Your task to perform on an android device: toggle notifications settings in the gmail app Image 0: 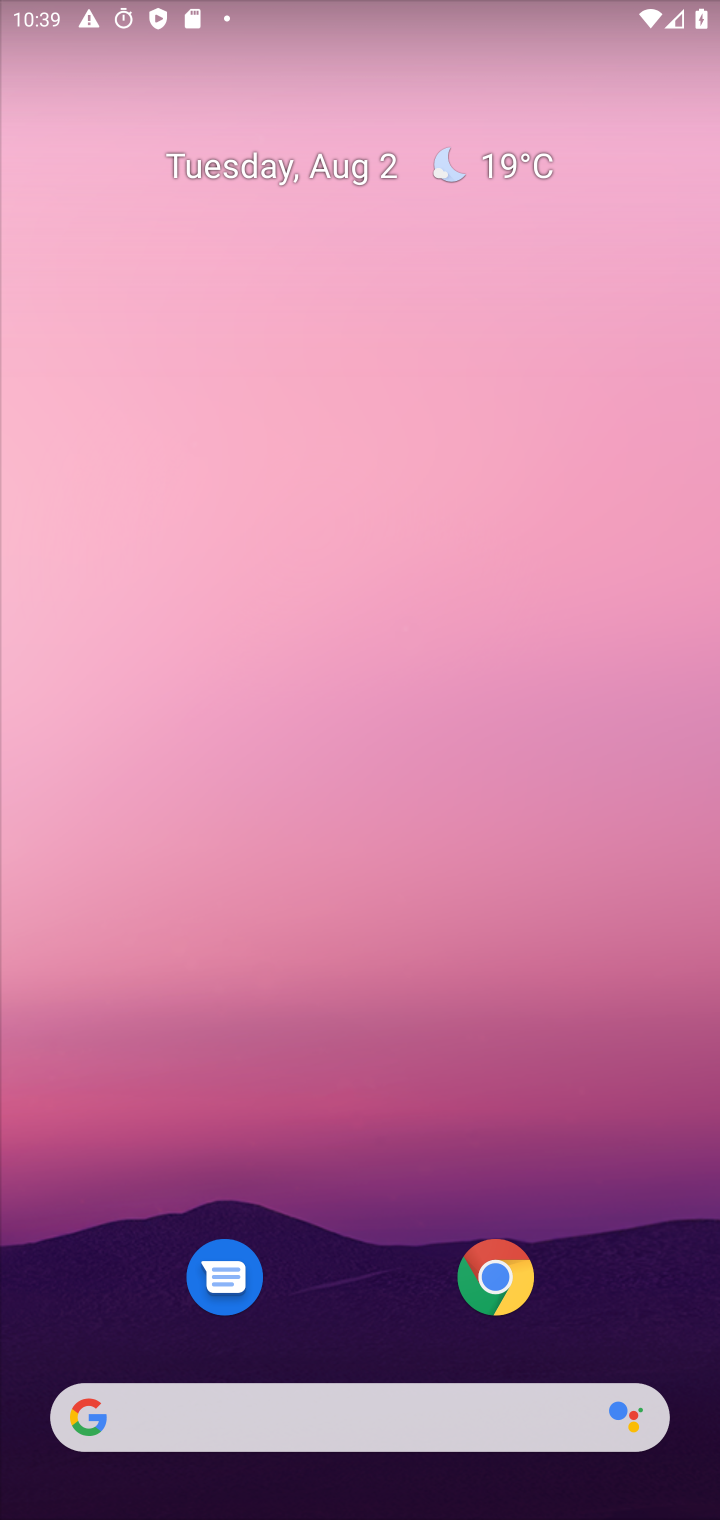
Step 0: press home button
Your task to perform on an android device: toggle notifications settings in the gmail app Image 1: 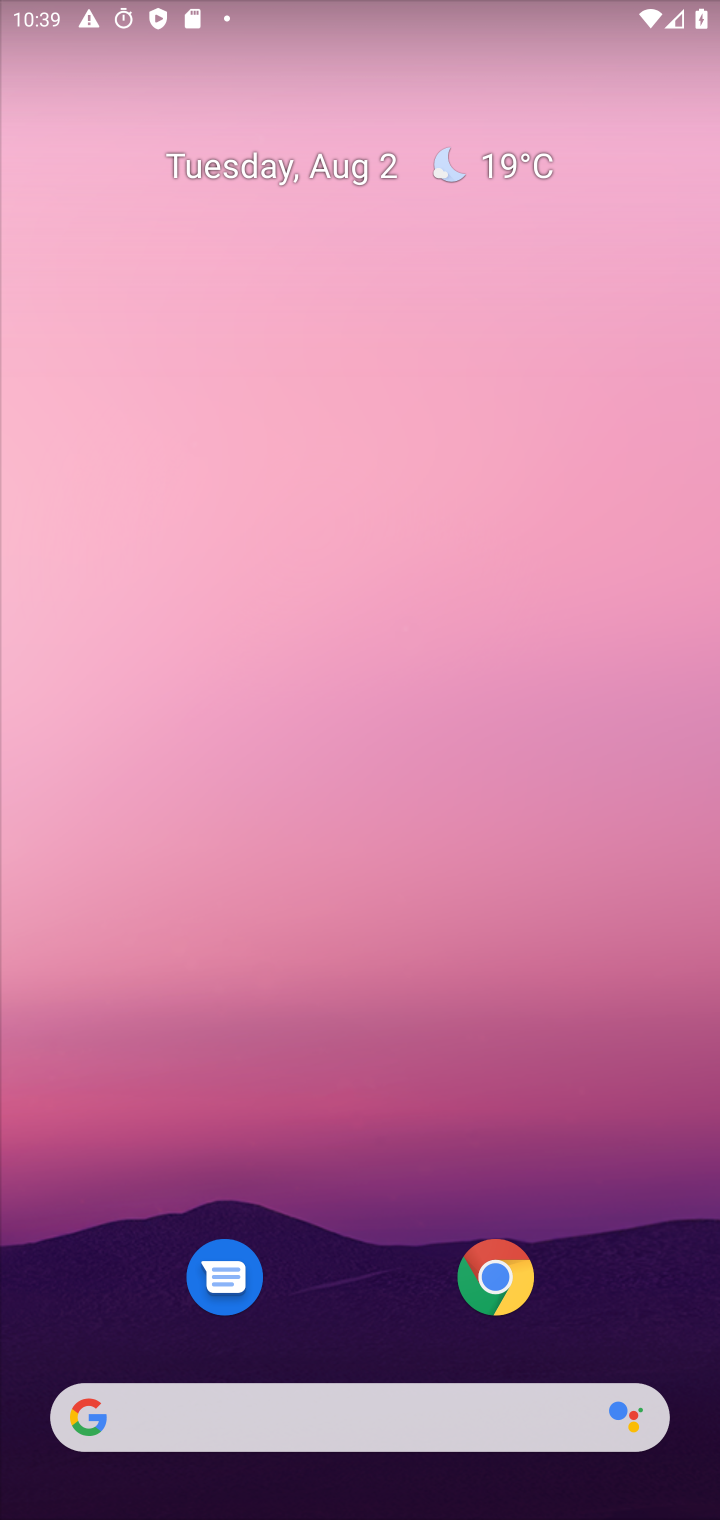
Step 1: press home button
Your task to perform on an android device: toggle notifications settings in the gmail app Image 2: 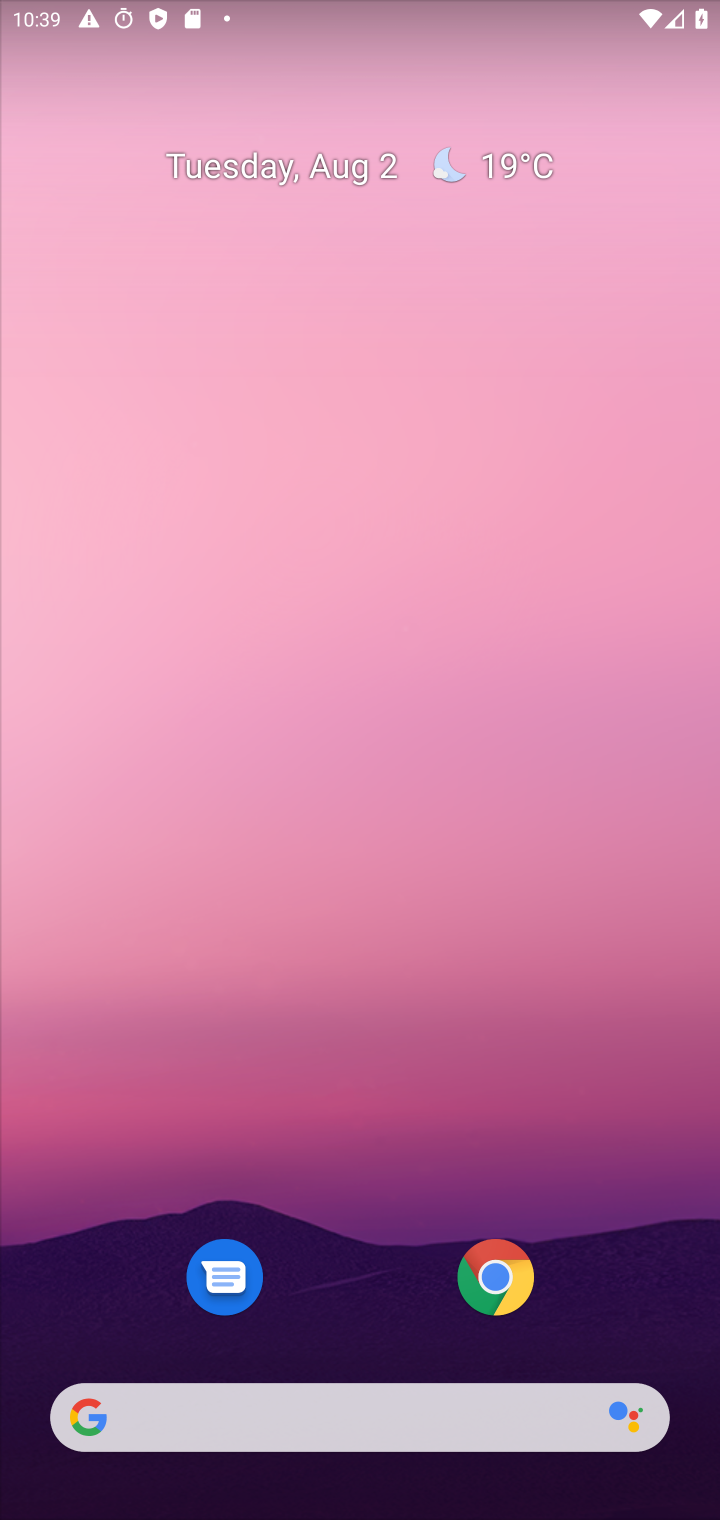
Step 2: drag from (342, 1217) to (281, 286)
Your task to perform on an android device: toggle notifications settings in the gmail app Image 3: 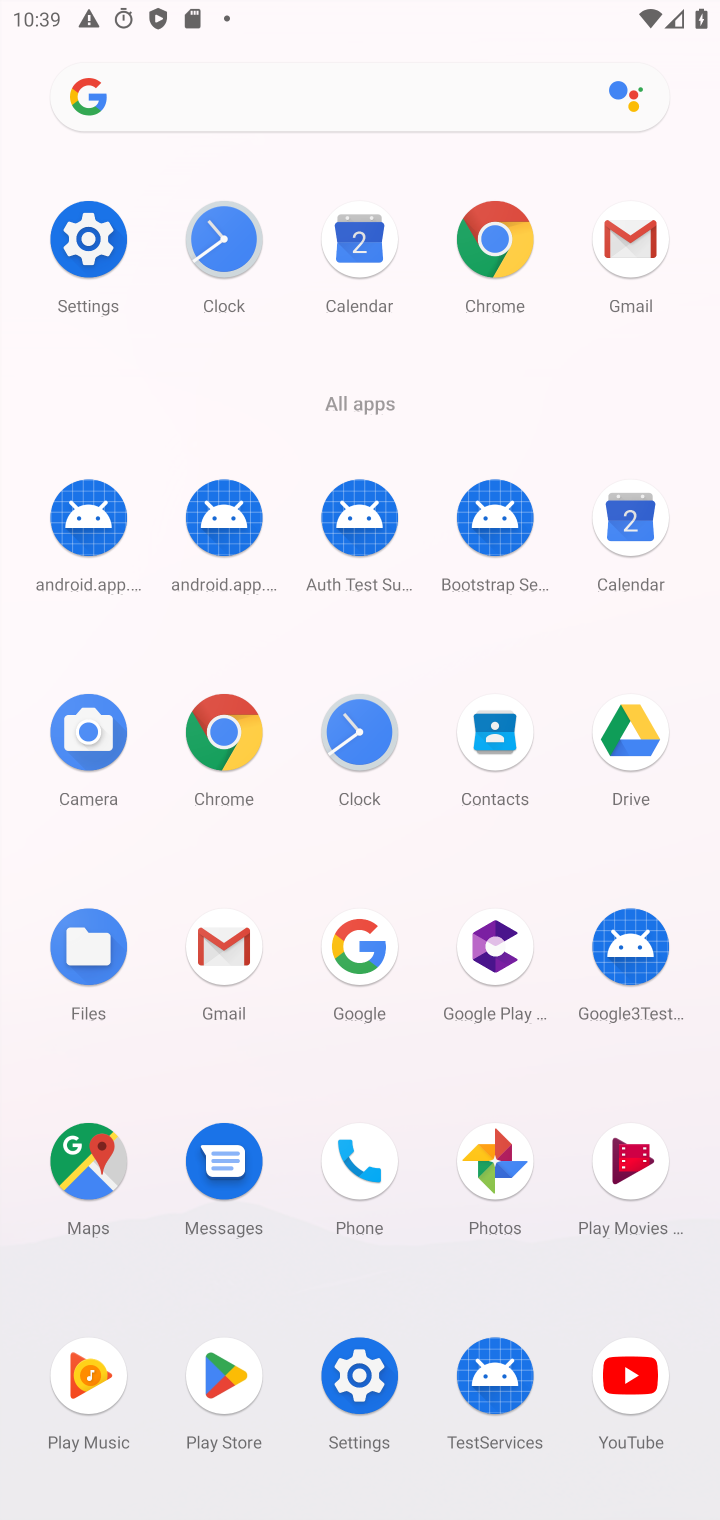
Step 3: click (631, 246)
Your task to perform on an android device: toggle notifications settings in the gmail app Image 4: 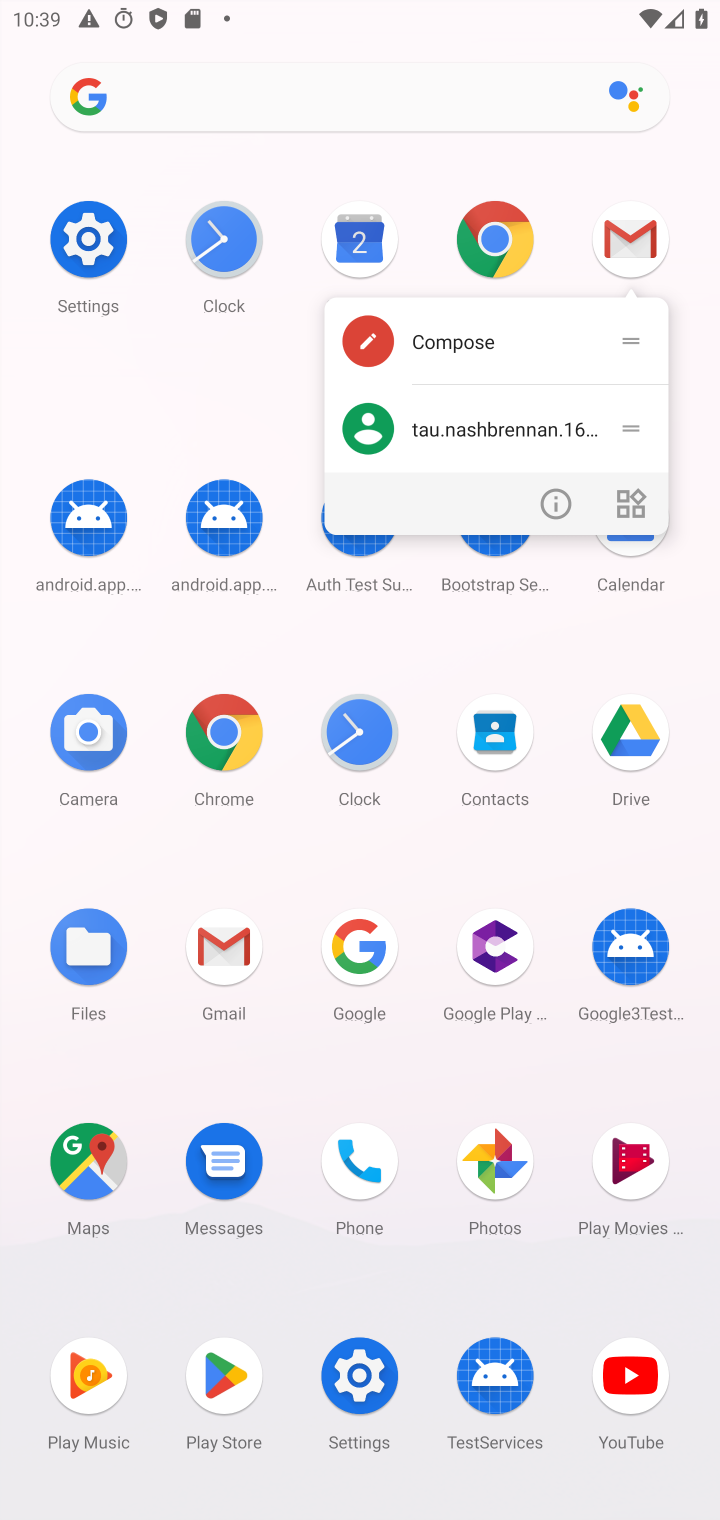
Step 4: click (629, 228)
Your task to perform on an android device: toggle notifications settings in the gmail app Image 5: 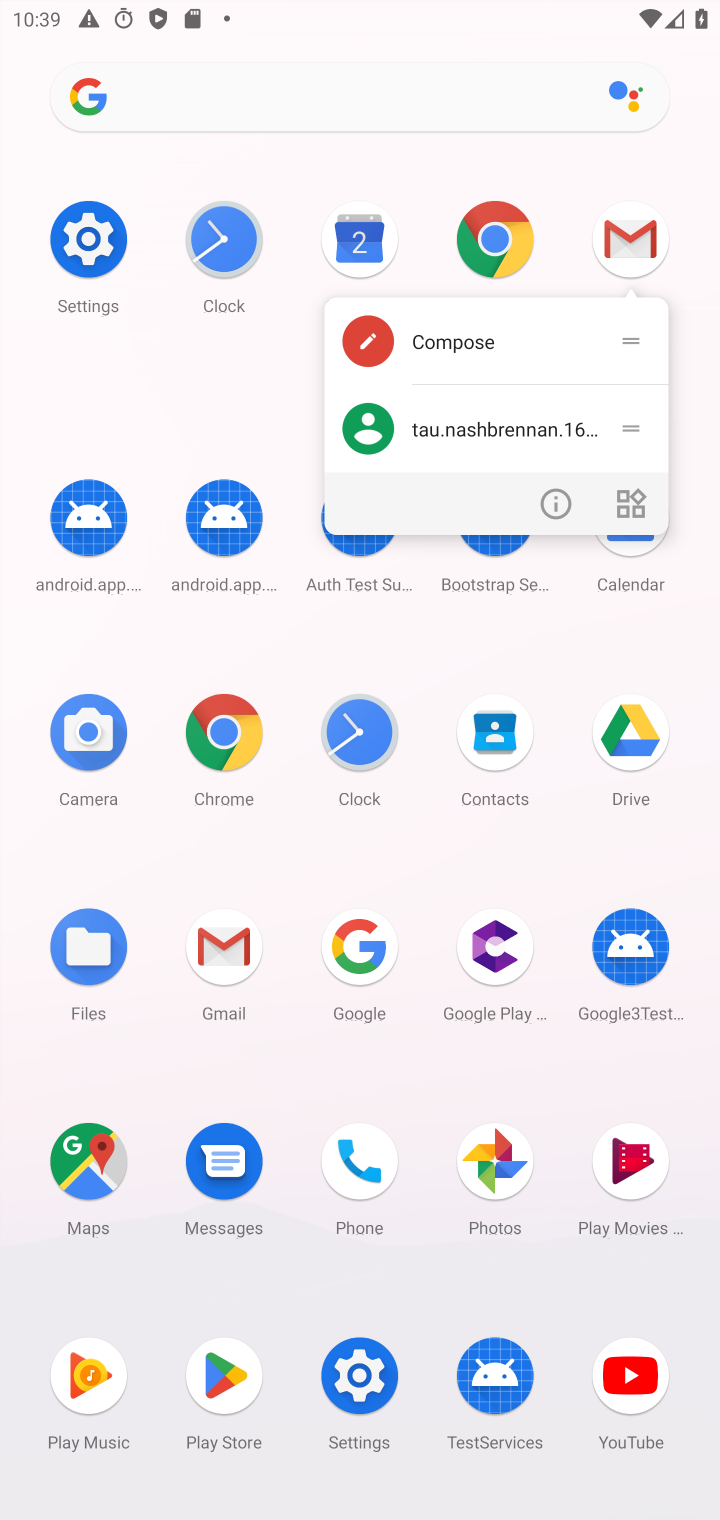
Step 5: click (629, 238)
Your task to perform on an android device: toggle notifications settings in the gmail app Image 6: 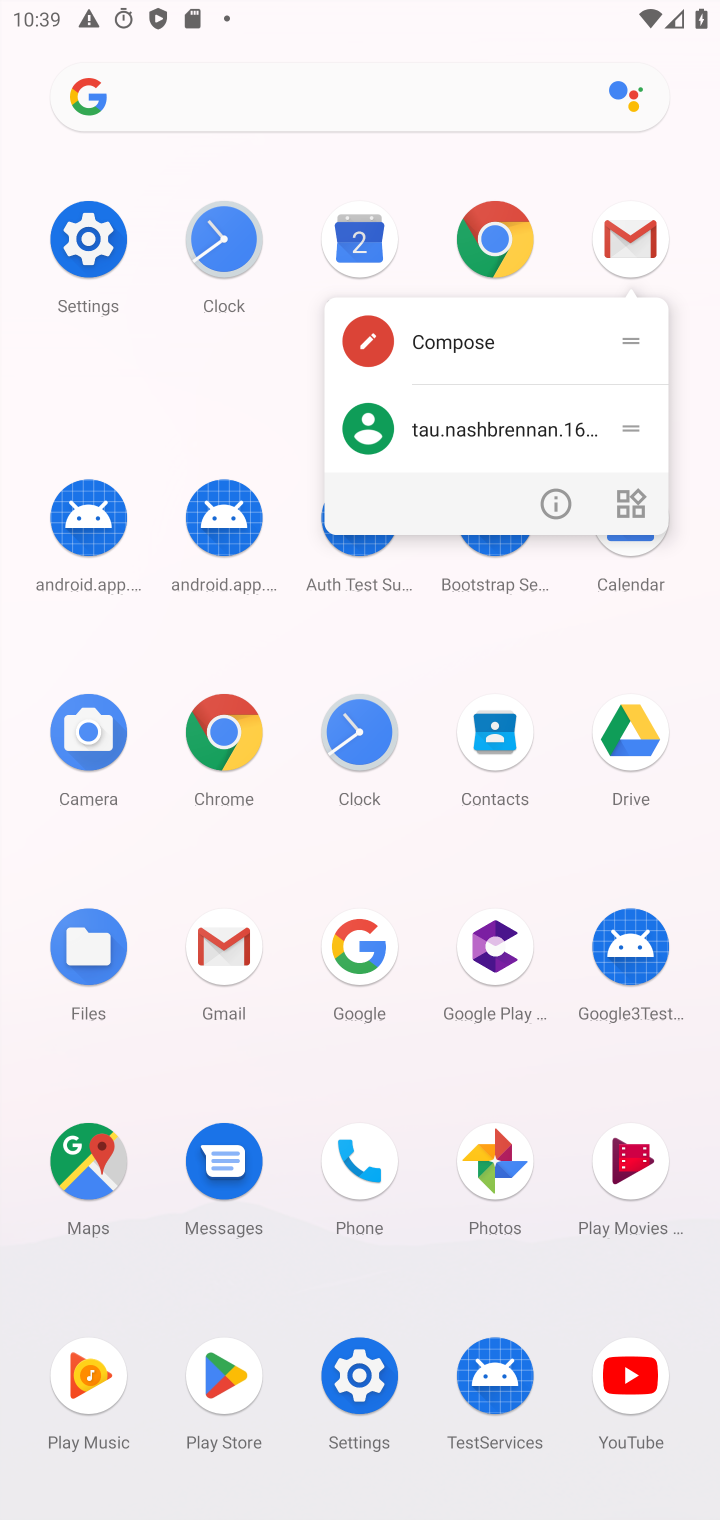
Step 6: click (652, 243)
Your task to perform on an android device: toggle notifications settings in the gmail app Image 7: 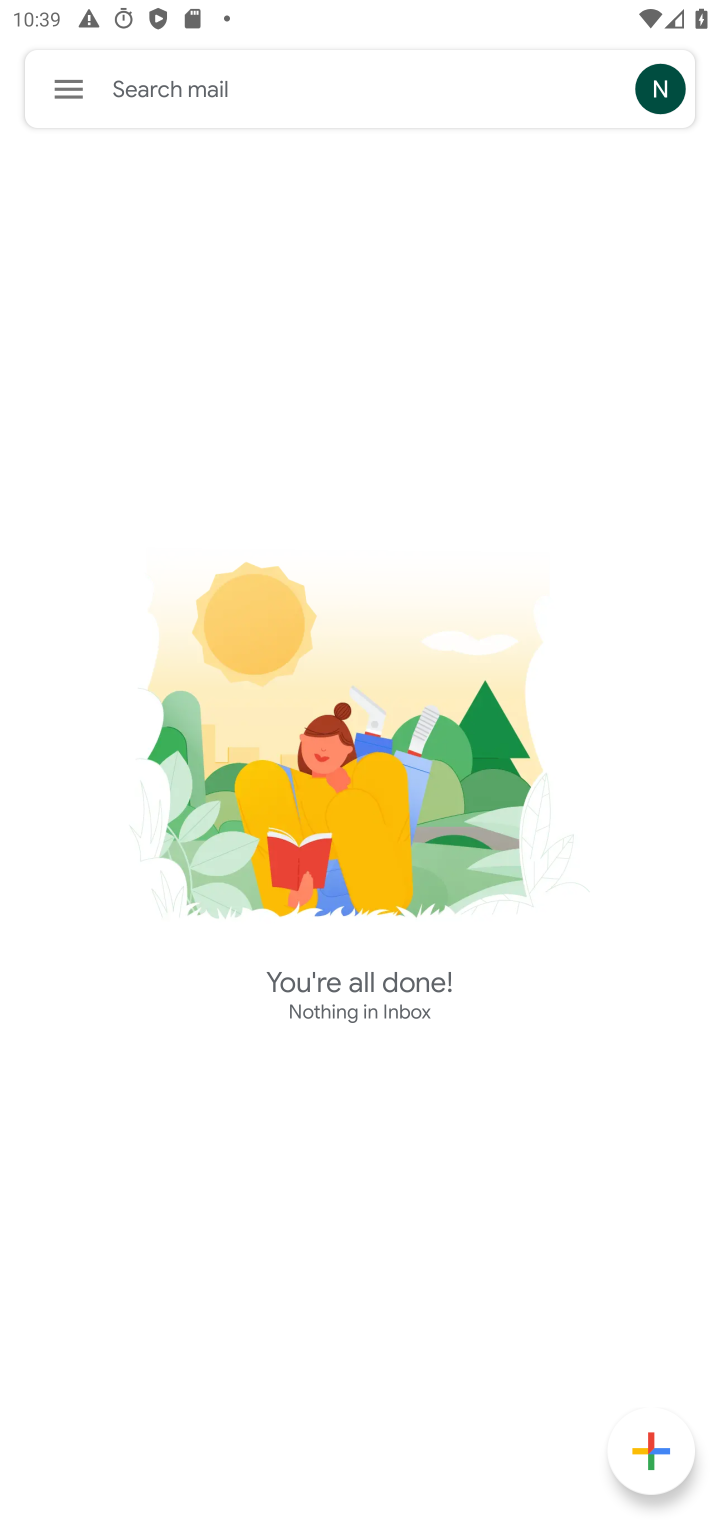
Step 7: click (71, 82)
Your task to perform on an android device: toggle notifications settings in the gmail app Image 8: 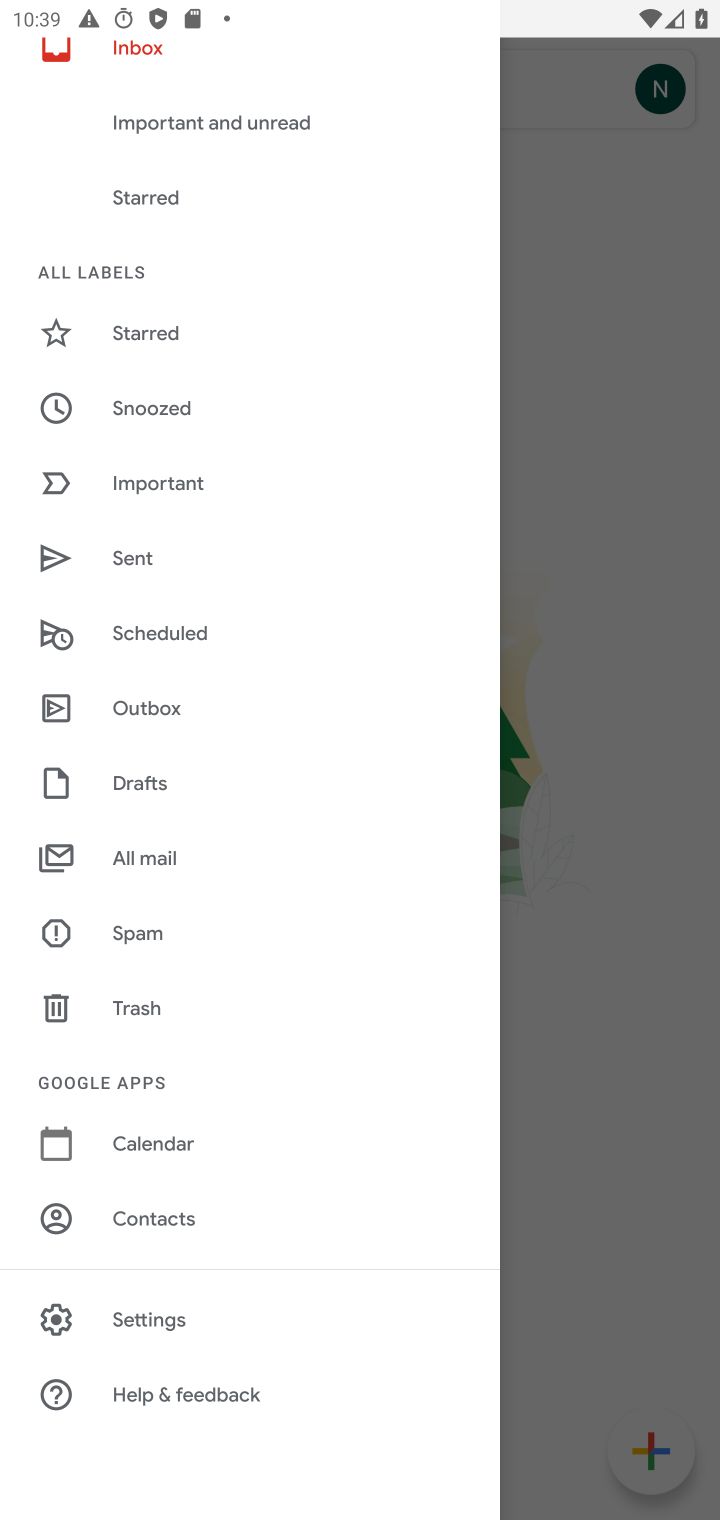
Step 8: click (163, 1314)
Your task to perform on an android device: toggle notifications settings in the gmail app Image 9: 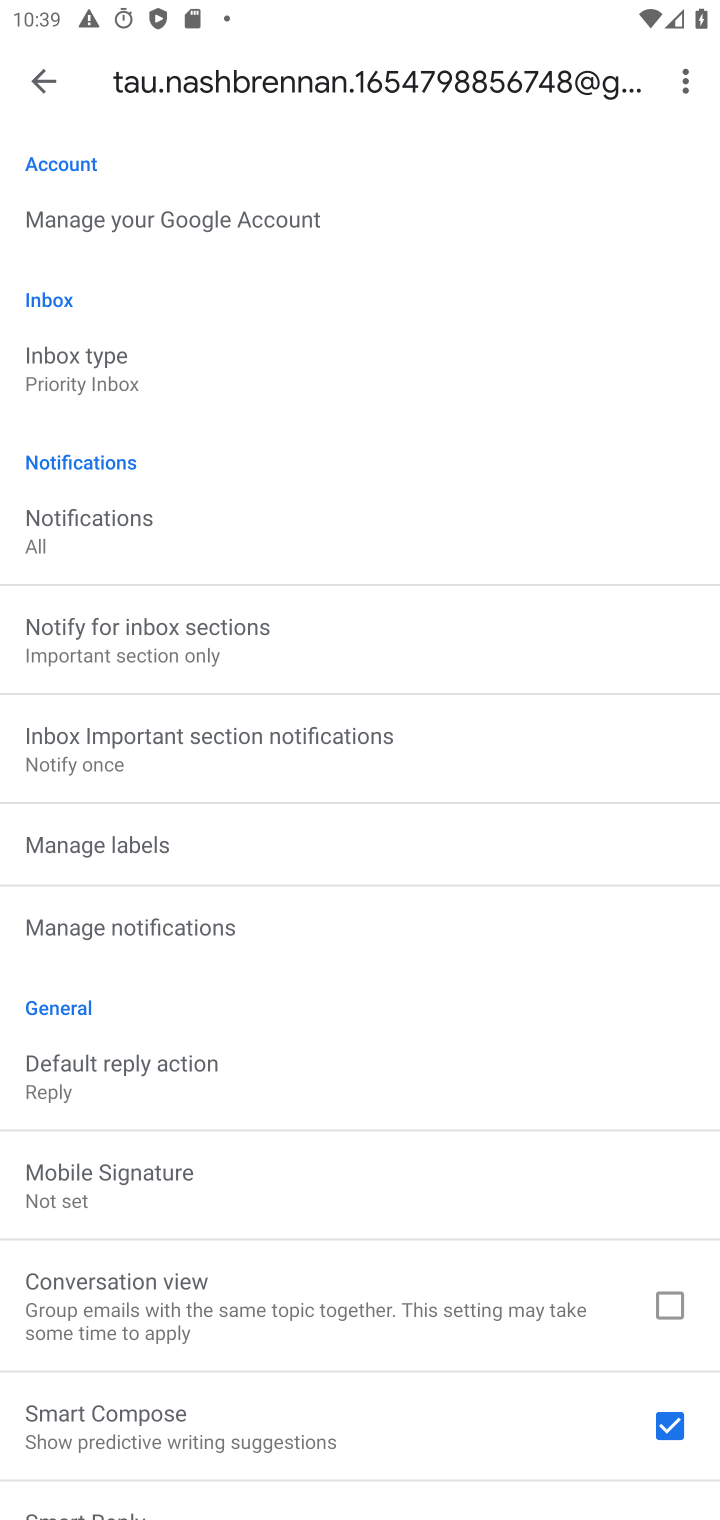
Step 9: click (144, 928)
Your task to perform on an android device: toggle notifications settings in the gmail app Image 10: 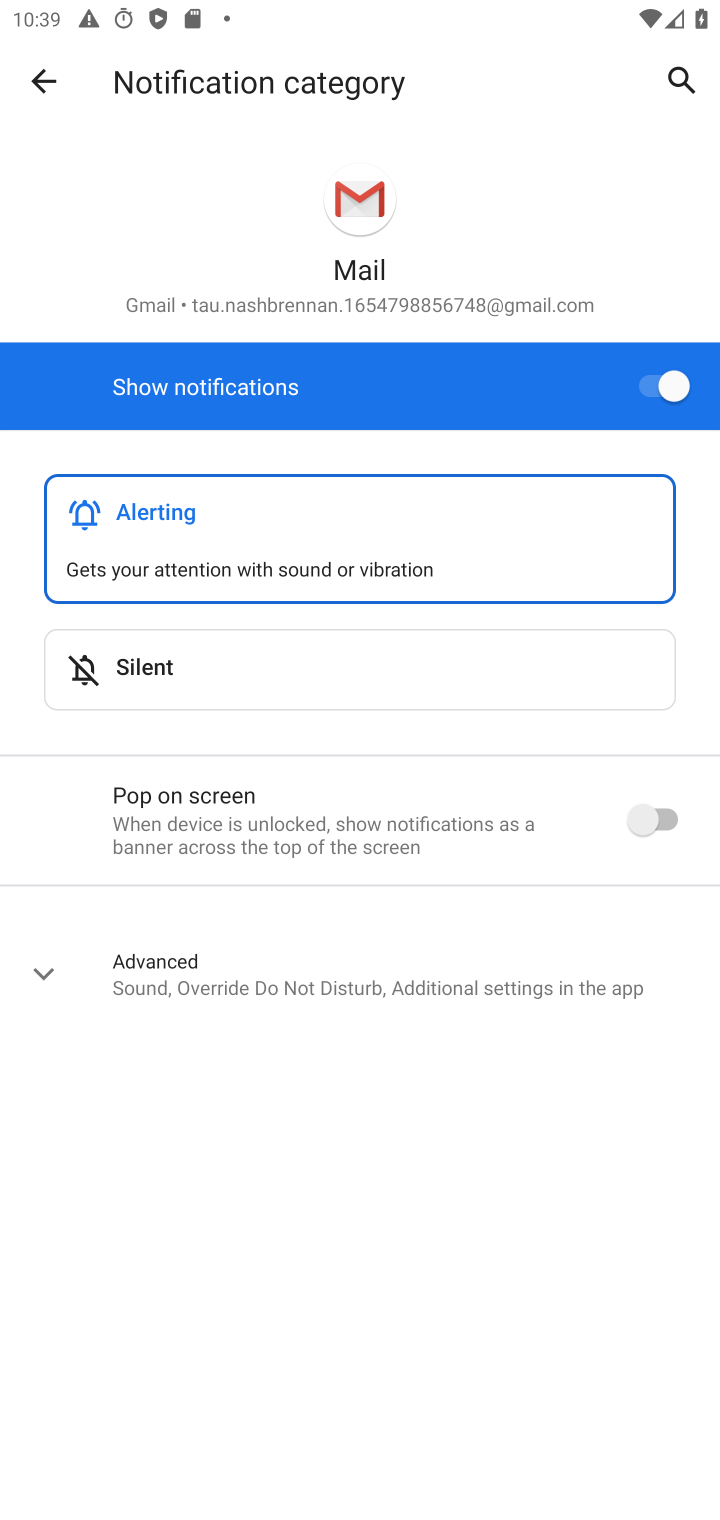
Step 10: click (677, 383)
Your task to perform on an android device: toggle notifications settings in the gmail app Image 11: 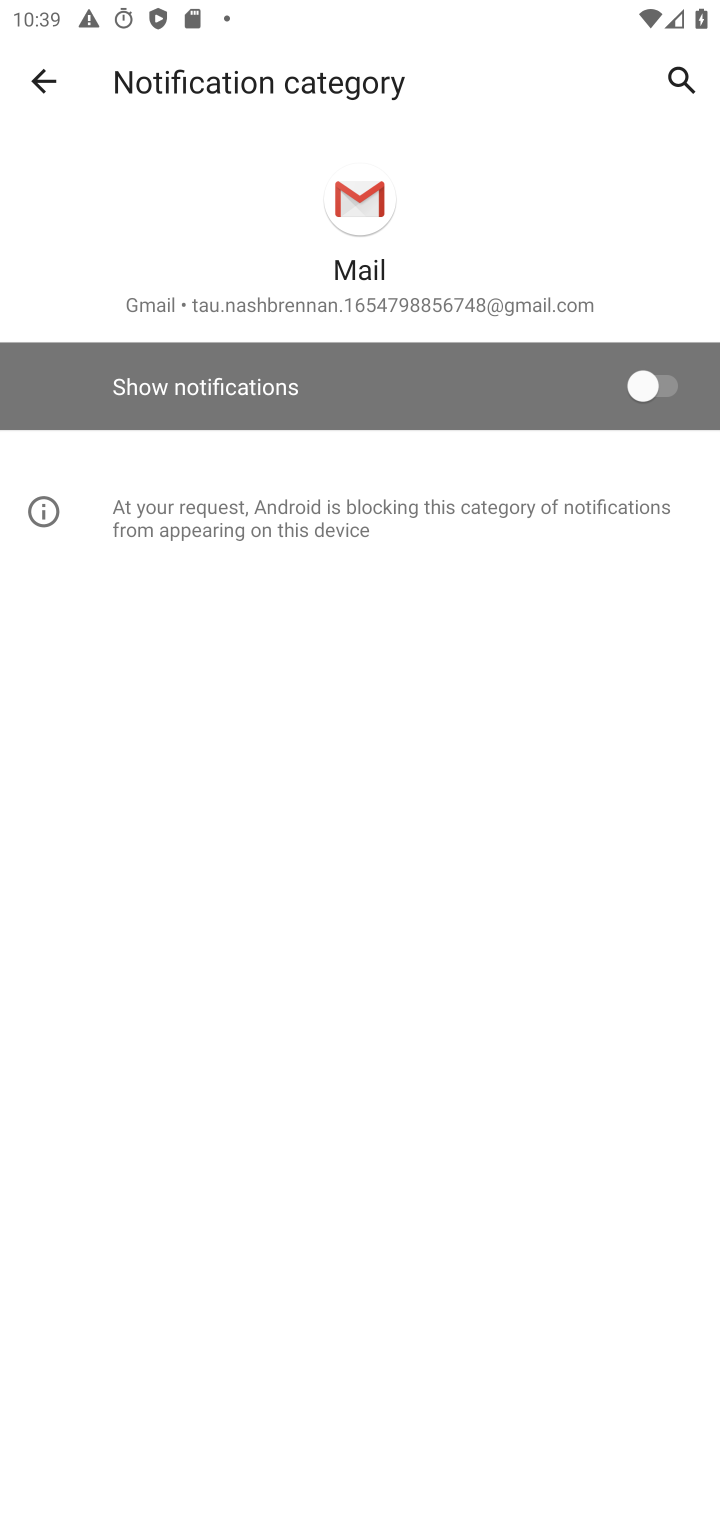
Step 11: task complete